Your task to perform on an android device: turn on bluetooth scan Image 0: 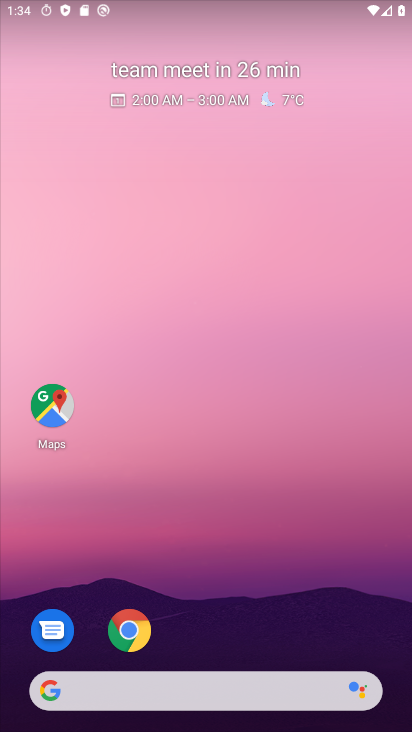
Step 0: click (172, 150)
Your task to perform on an android device: turn on bluetooth scan Image 1: 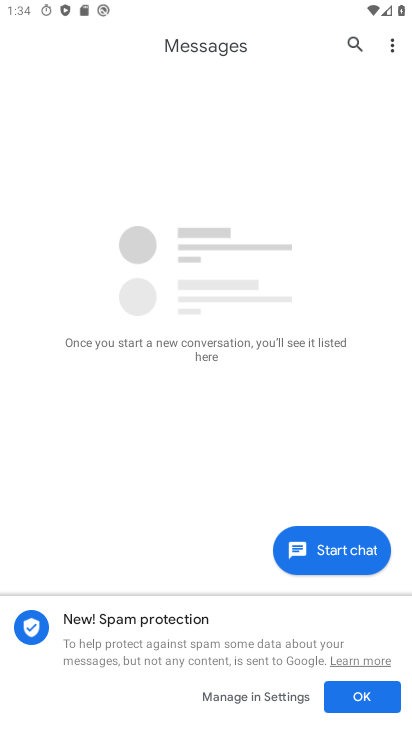
Step 1: press home button
Your task to perform on an android device: turn on bluetooth scan Image 2: 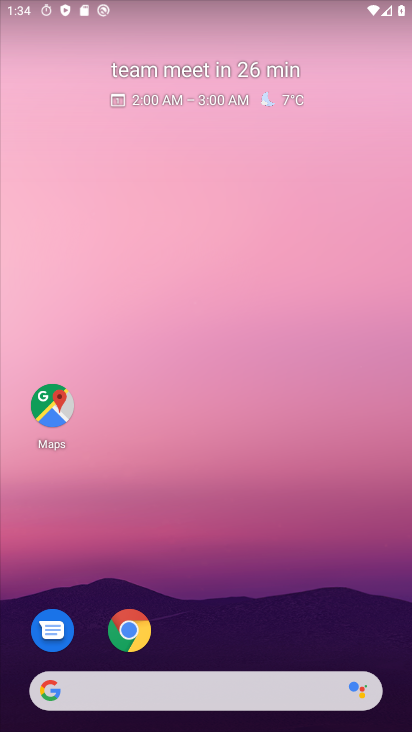
Step 2: drag from (218, 700) to (207, 114)
Your task to perform on an android device: turn on bluetooth scan Image 3: 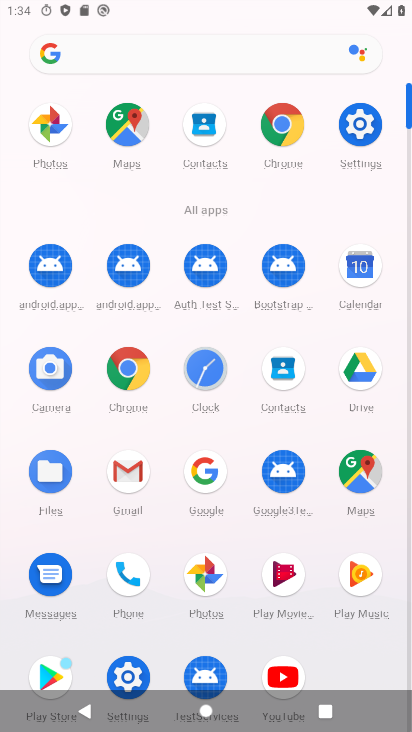
Step 3: click (360, 136)
Your task to perform on an android device: turn on bluetooth scan Image 4: 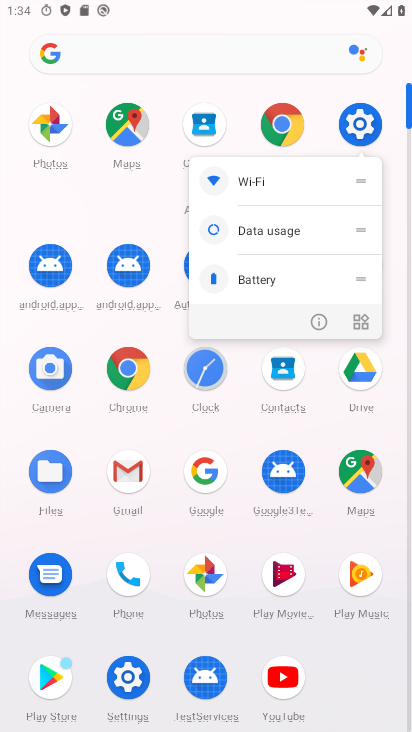
Step 4: click (380, 128)
Your task to perform on an android device: turn on bluetooth scan Image 5: 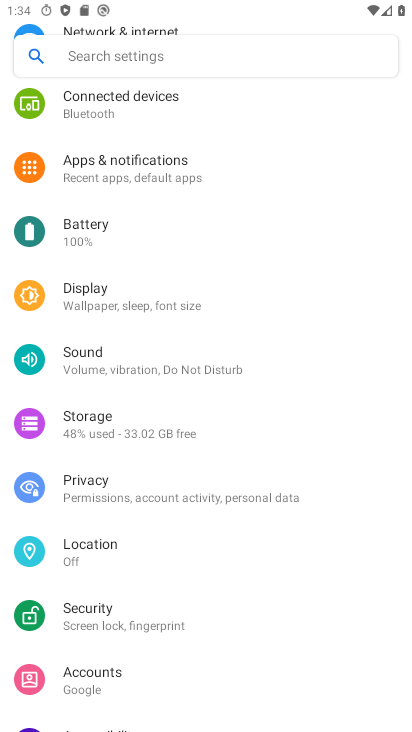
Step 5: click (114, 547)
Your task to perform on an android device: turn on bluetooth scan Image 6: 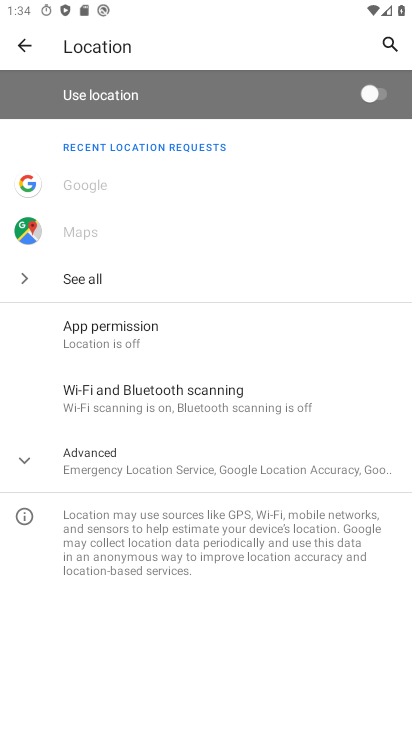
Step 6: click (128, 410)
Your task to perform on an android device: turn on bluetooth scan Image 7: 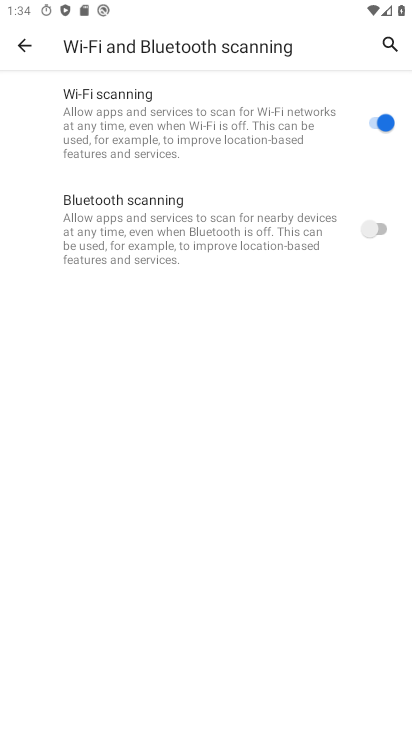
Step 7: click (374, 232)
Your task to perform on an android device: turn on bluetooth scan Image 8: 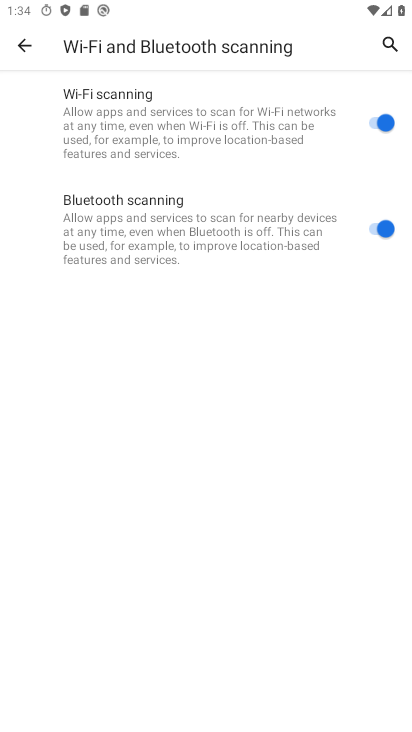
Step 8: task complete